Your task to perform on an android device: turn on data saver in the chrome app Image 0: 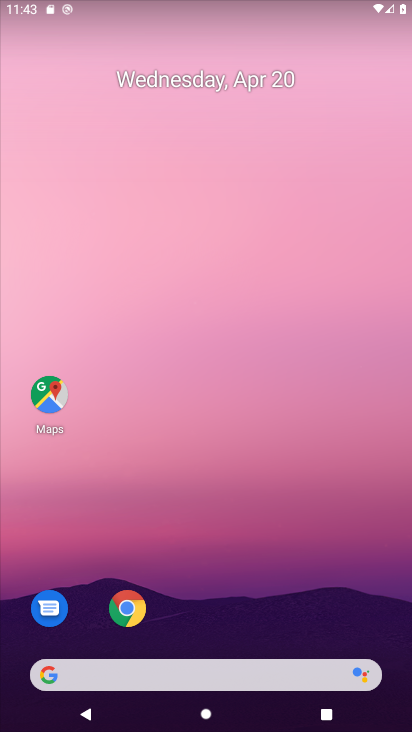
Step 0: click (123, 609)
Your task to perform on an android device: turn on data saver in the chrome app Image 1: 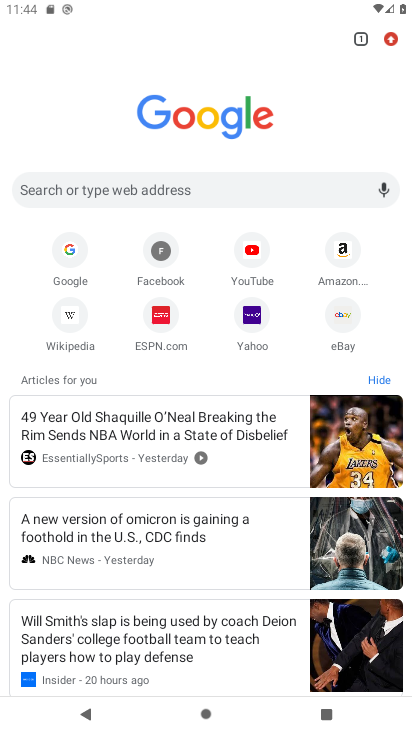
Step 1: click (390, 34)
Your task to perform on an android device: turn on data saver in the chrome app Image 2: 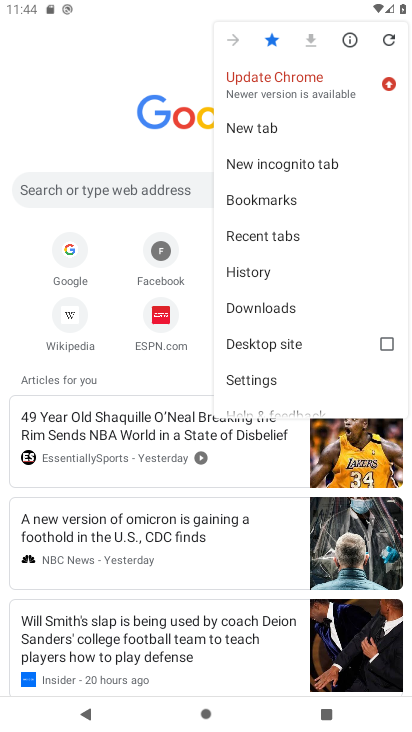
Step 2: click (266, 382)
Your task to perform on an android device: turn on data saver in the chrome app Image 3: 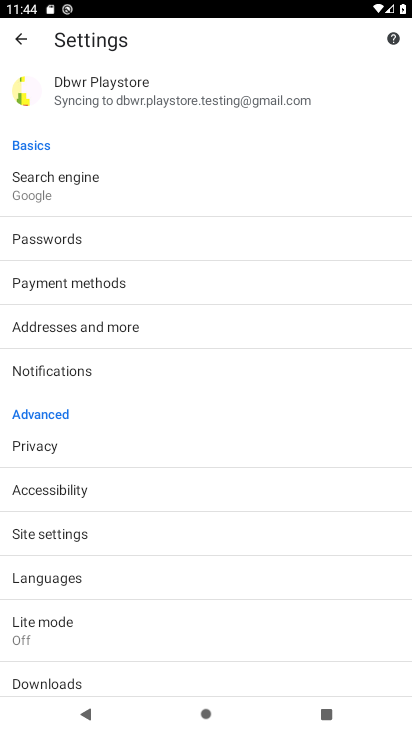
Step 3: click (41, 633)
Your task to perform on an android device: turn on data saver in the chrome app Image 4: 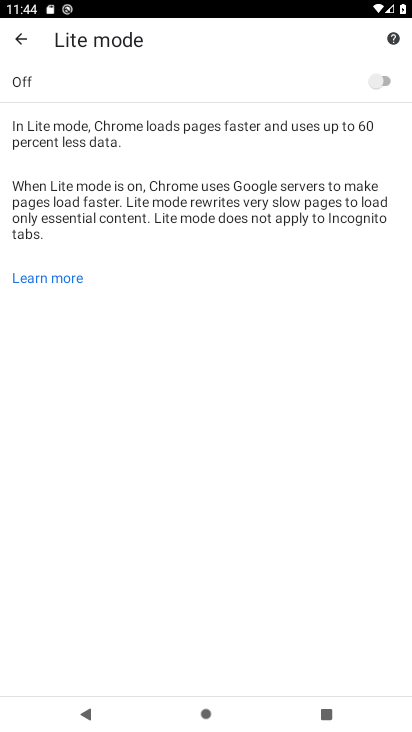
Step 4: click (387, 71)
Your task to perform on an android device: turn on data saver in the chrome app Image 5: 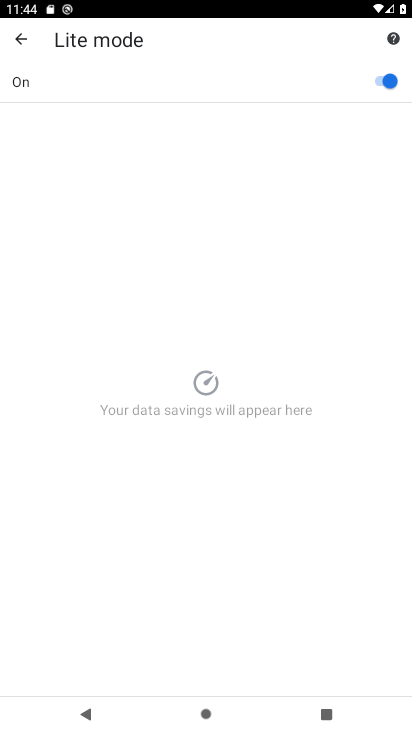
Step 5: task complete